Your task to perform on an android device: open a bookmark in the chrome app Image 0: 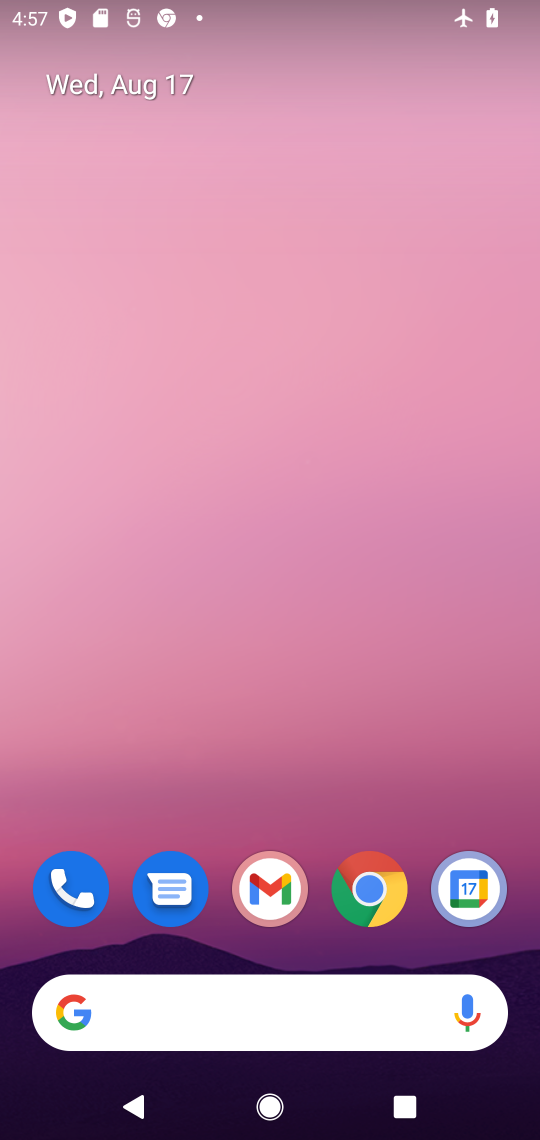
Step 0: click (374, 892)
Your task to perform on an android device: open a bookmark in the chrome app Image 1: 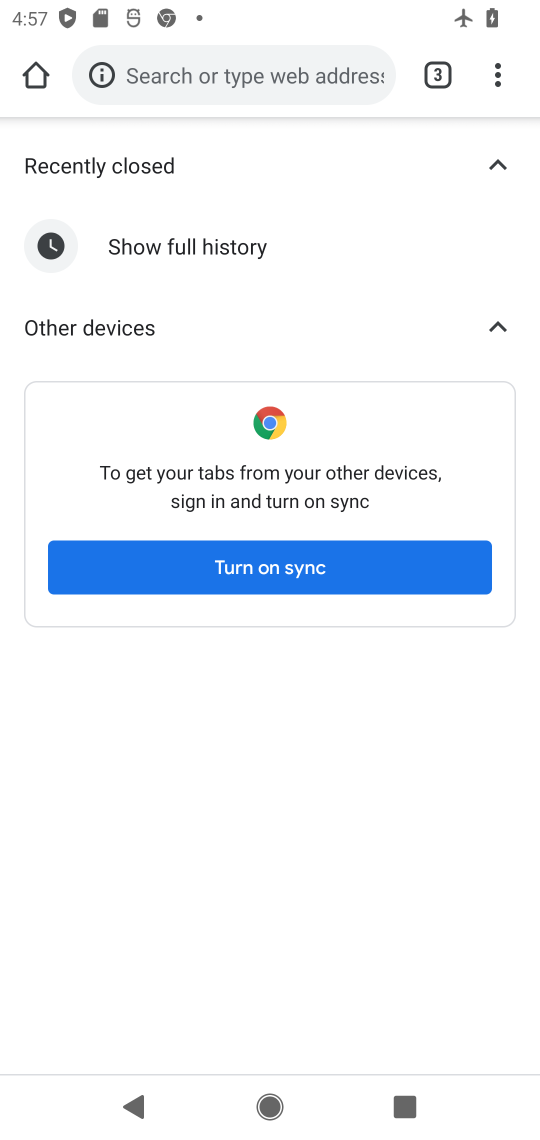
Step 1: click (496, 73)
Your task to perform on an android device: open a bookmark in the chrome app Image 2: 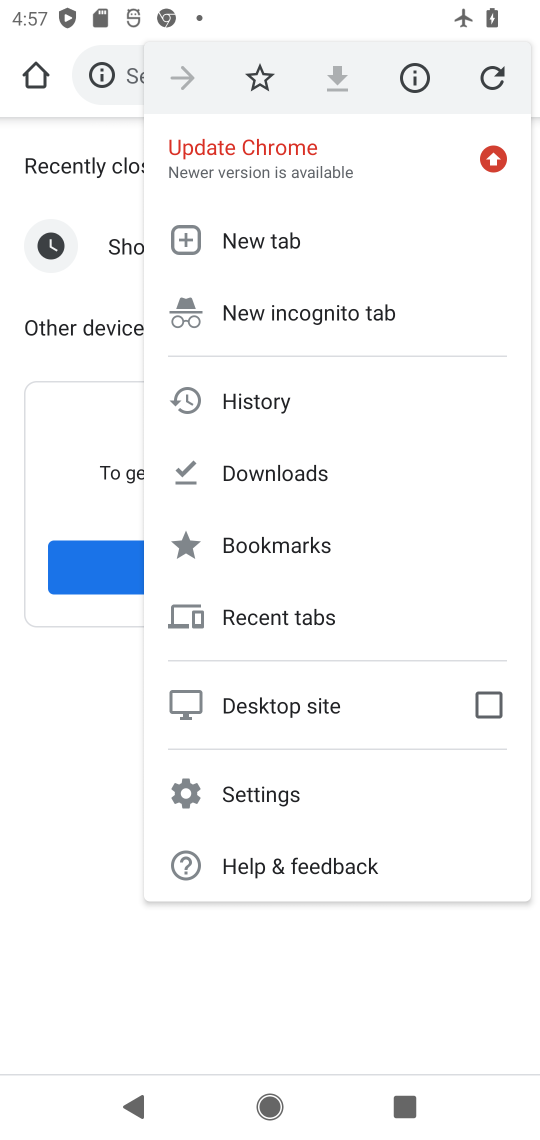
Step 2: click (279, 539)
Your task to perform on an android device: open a bookmark in the chrome app Image 3: 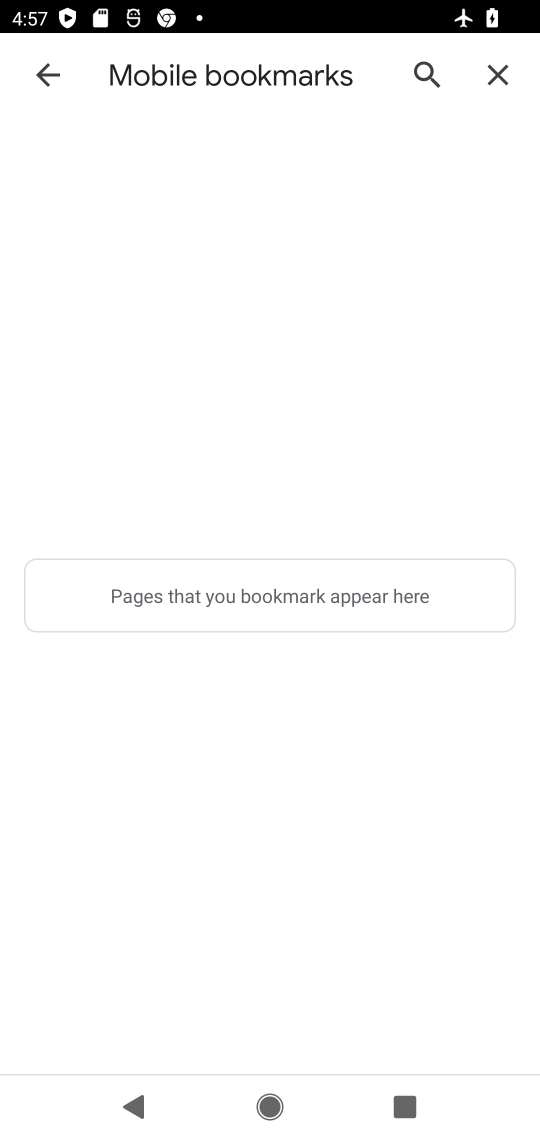
Step 3: task complete